Your task to perform on an android device: turn pop-ups on in chrome Image 0: 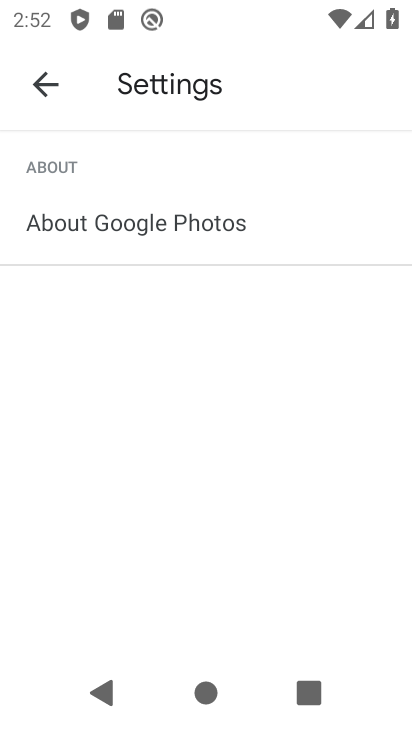
Step 0: press home button
Your task to perform on an android device: turn pop-ups on in chrome Image 1: 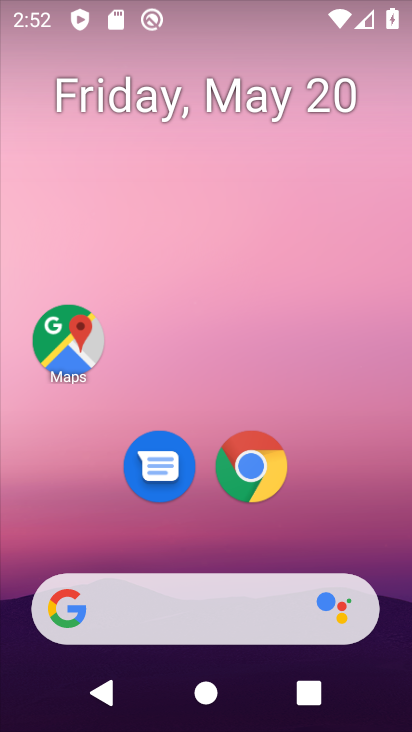
Step 1: click (252, 473)
Your task to perform on an android device: turn pop-ups on in chrome Image 2: 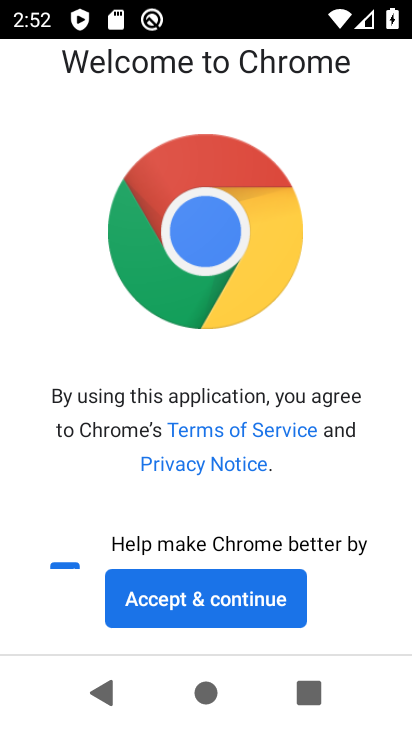
Step 2: click (192, 589)
Your task to perform on an android device: turn pop-ups on in chrome Image 3: 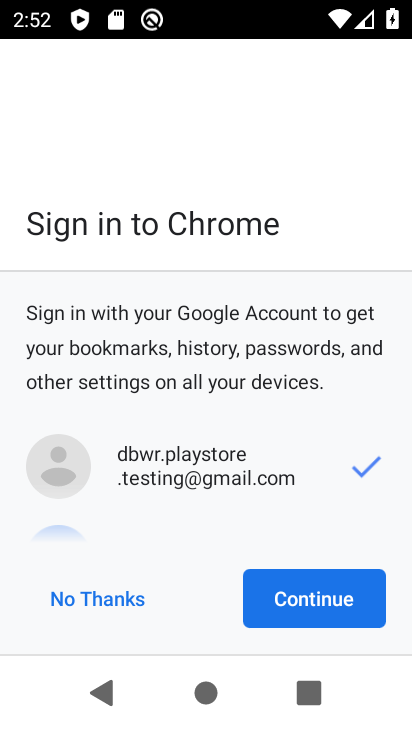
Step 3: click (280, 601)
Your task to perform on an android device: turn pop-ups on in chrome Image 4: 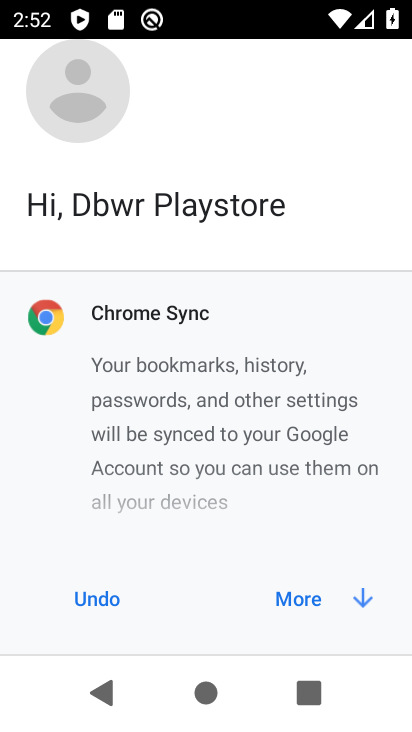
Step 4: click (308, 598)
Your task to perform on an android device: turn pop-ups on in chrome Image 5: 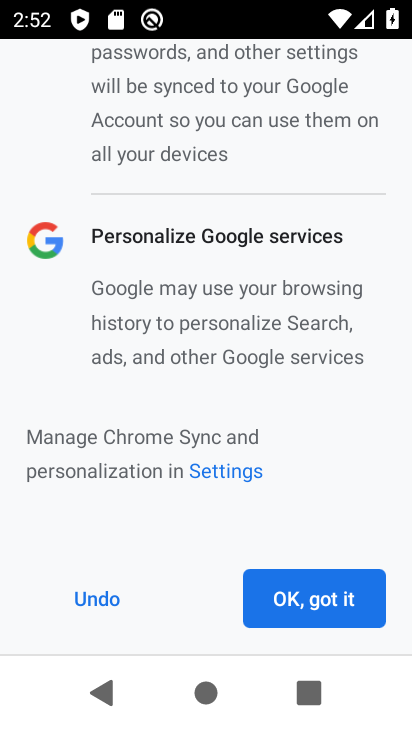
Step 5: click (282, 609)
Your task to perform on an android device: turn pop-ups on in chrome Image 6: 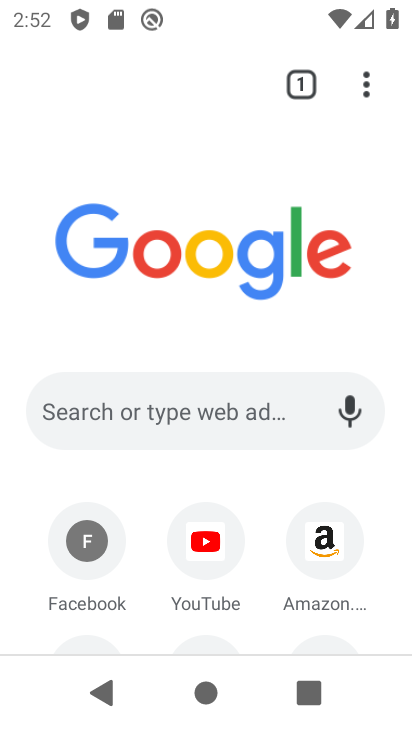
Step 6: click (365, 84)
Your task to perform on an android device: turn pop-ups on in chrome Image 7: 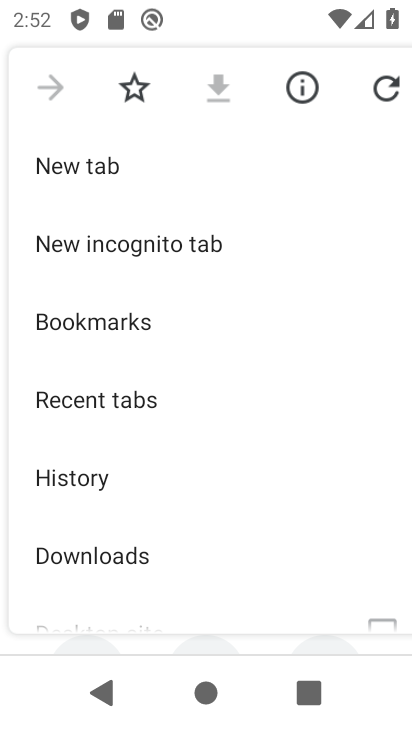
Step 7: drag from (160, 570) to (160, 293)
Your task to perform on an android device: turn pop-ups on in chrome Image 8: 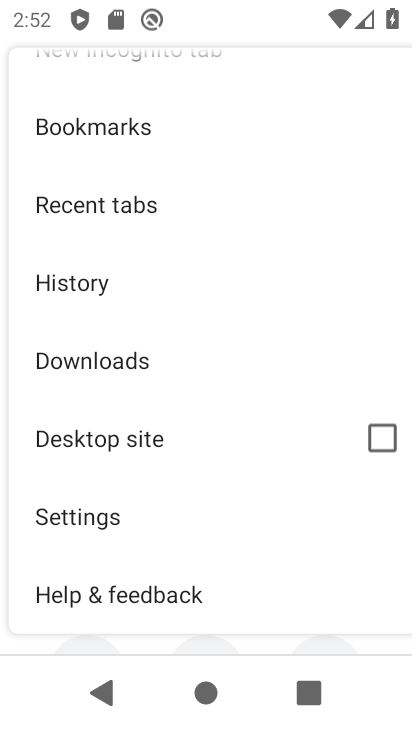
Step 8: click (88, 520)
Your task to perform on an android device: turn pop-ups on in chrome Image 9: 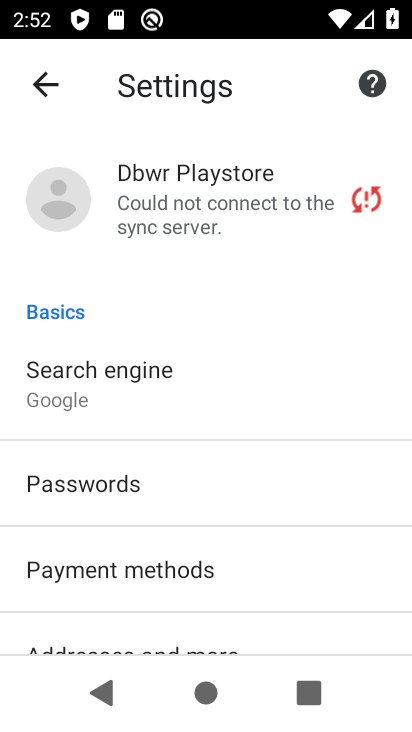
Step 9: drag from (140, 631) to (160, 192)
Your task to perform on an android device: turn pop-ups on in chrome Image 10: 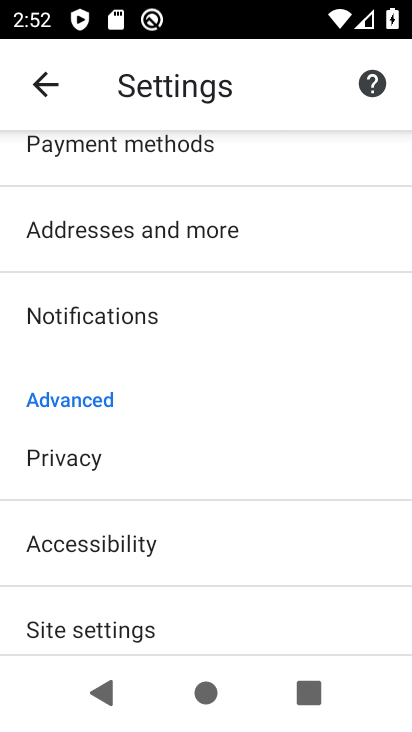
Step 10: drag from (147, 569) to (160, 255)
Your task to perform on an android device: turn pop-ups on in chrome Image 11: 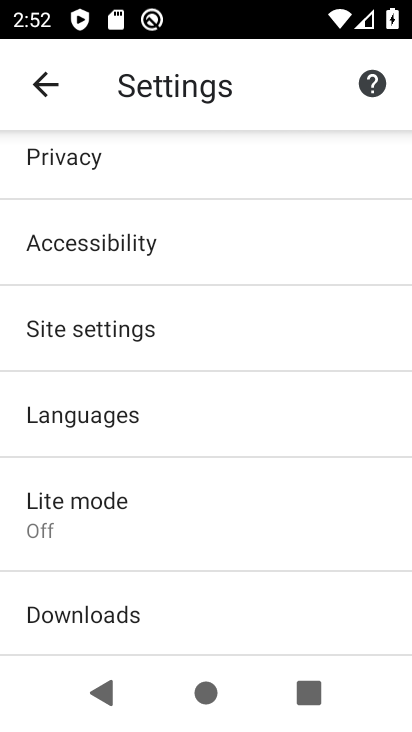
Step 11: click (77, 329)
Your task to perform on an android device: turn pop-ups on in chrome Image 12: 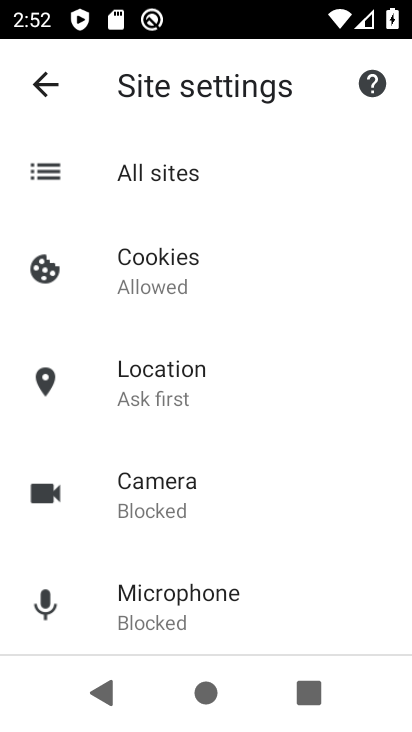
Step 12: drag from (141, 628) to (157, 375)
Your task to perform on an android device: turn pop-ups on in chrome Image 13: 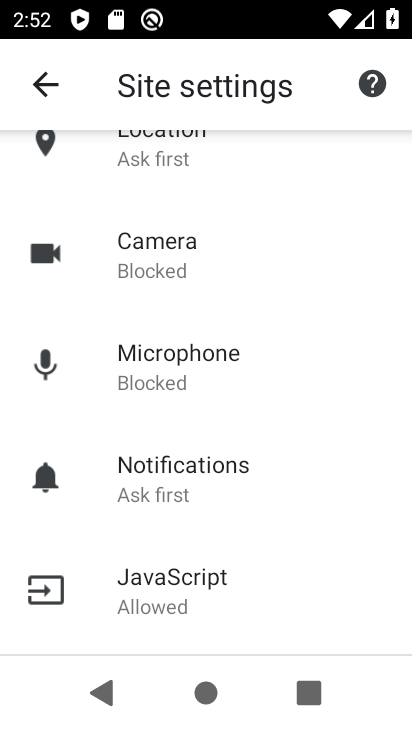
Step 13: drag from (197, 613) to (219, 374)
Your task to perform on an android device: turn pop-ups on in chrome Image 14: 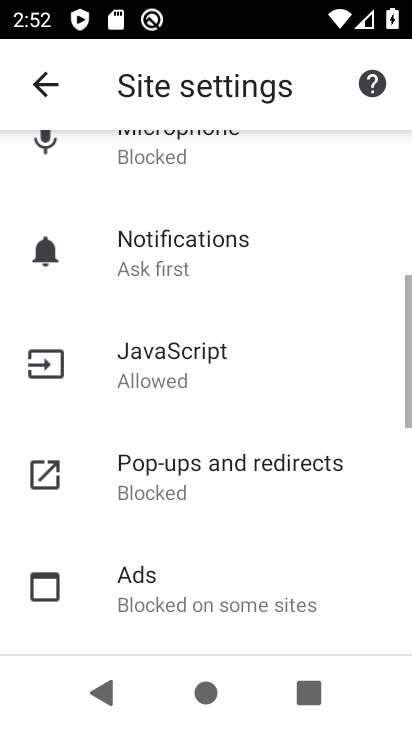
Step 14: click (199, 488)
Your task to perform on an android device: turn pop-ups on in chrome Image 15: 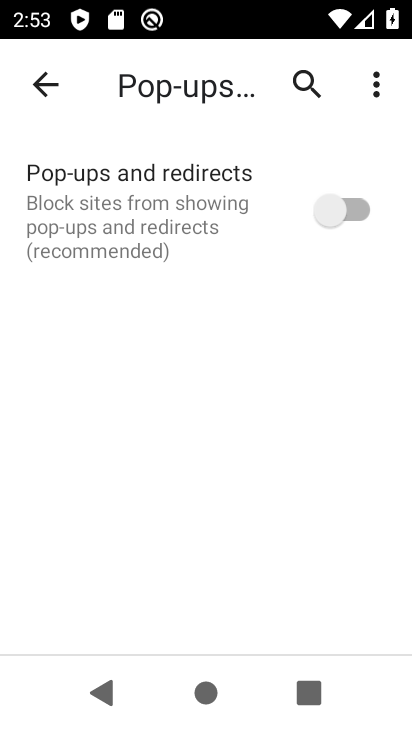
Step 15: click (354, 201)
Your task to perform on an android device: turn pop-ups on in chrome Image 16: 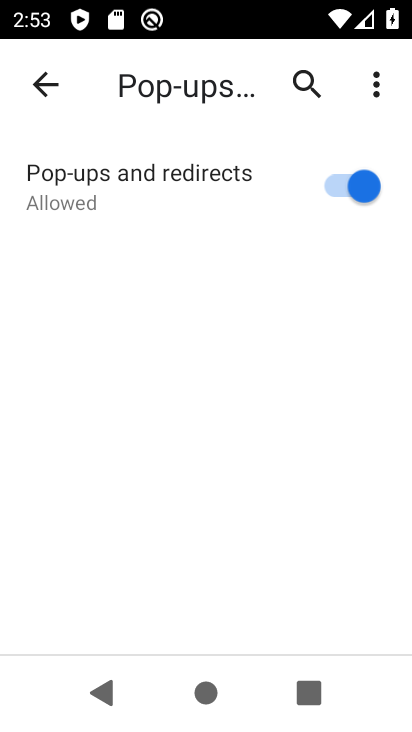
Step 16: task complete